Your task to perform on an android device: delete the emails in spam in the gmail app Image 0: 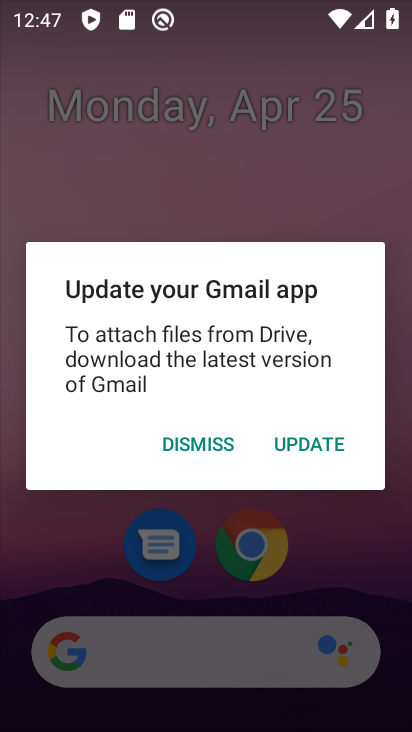
Step 0: press home button
Your task to perform on an android device: delete the emails in spam in the gmail app Image 1: 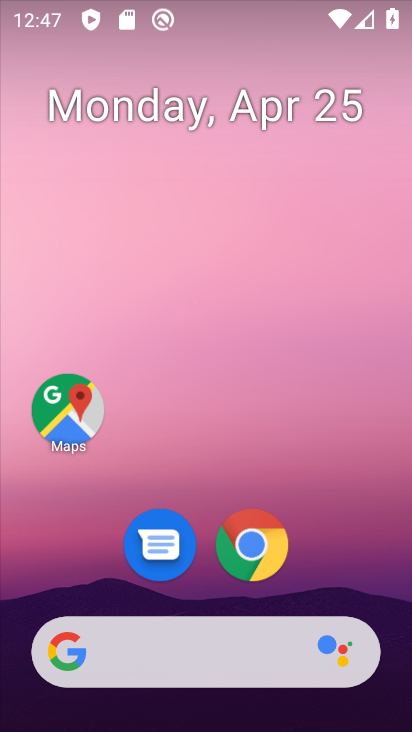
Step 1: drag from (342, 537) to (70, 201)
Your task to perform on an android device: delete the emails in spam in the gmail app Image 2: 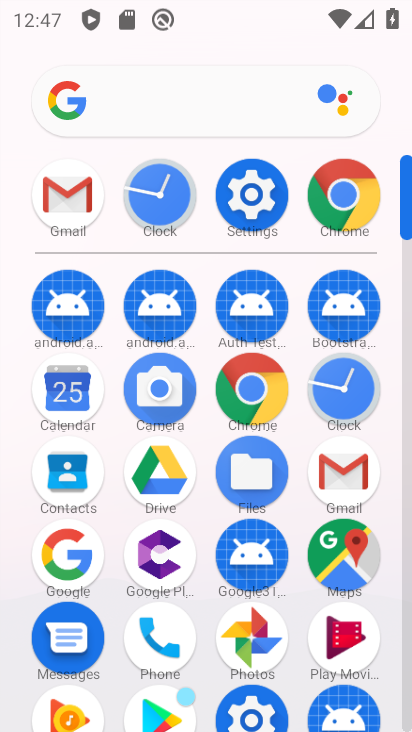
Step 2: click (336, 472)
Your task to perform on an android device: delete the emails in spam in the gmail app Image 3: 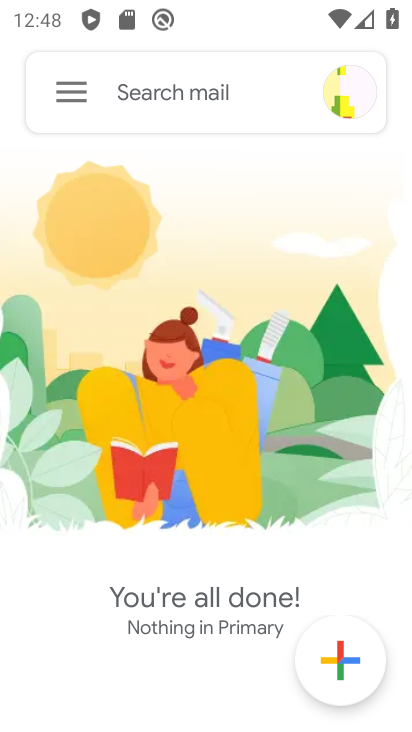
Step 3: click (72, 96)
Your task to perform on an android device: delete the emails in spam in the gmail app Image 4: 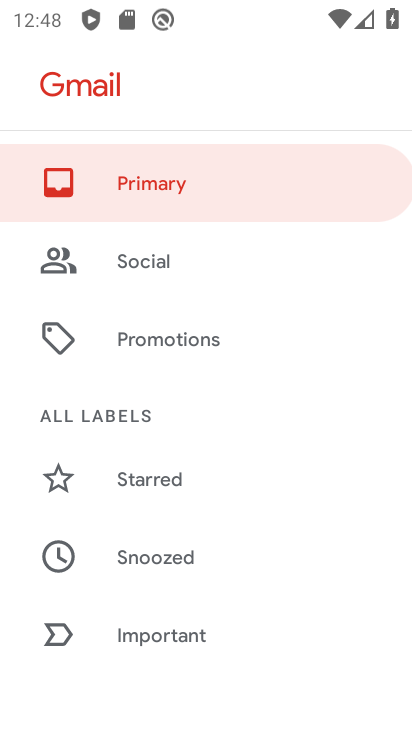
Step 4: drag from (195, 587) to (160, 243)
Your task to perform on an android device: delete the emails in spam in the gmail app Image 5: 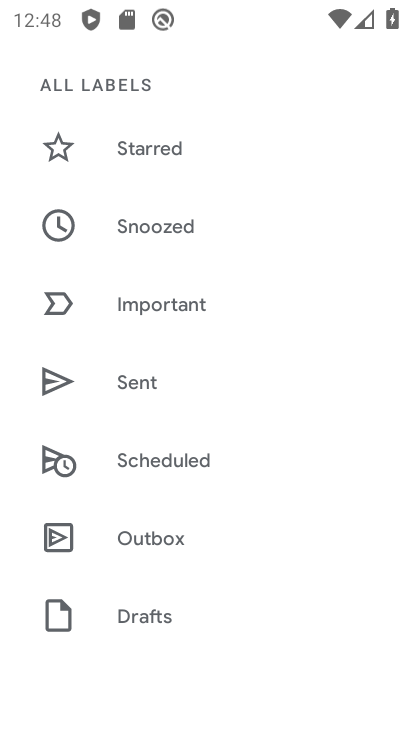
Step 5: drag from (171, 620) to (167, 198)
Your task to perform on an android device: delete the emails in spam in the gmail app Image 6: 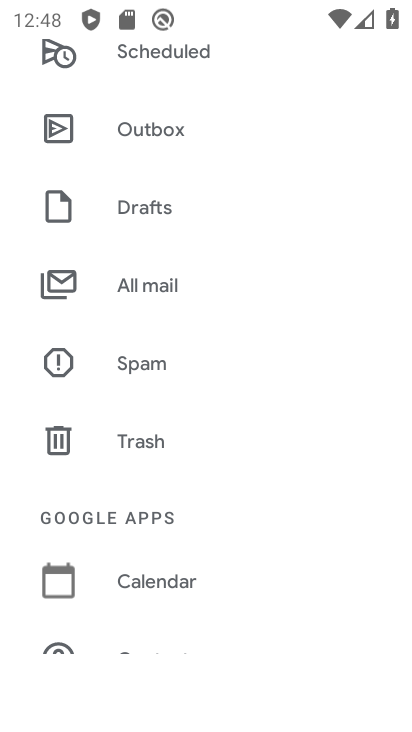
Step 6: click (164, 365)
Your task to perform on an android device: delete the emails in spam in the gmail app Image 7: 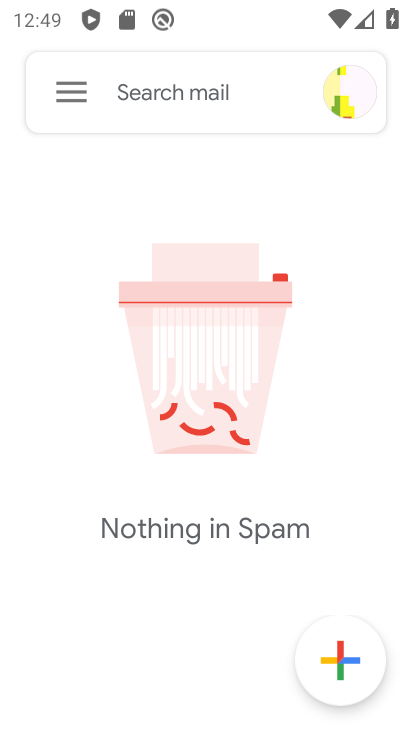
Step 7: task complete